Your task to perform on an android device: Open Yahoo.com Image 0: 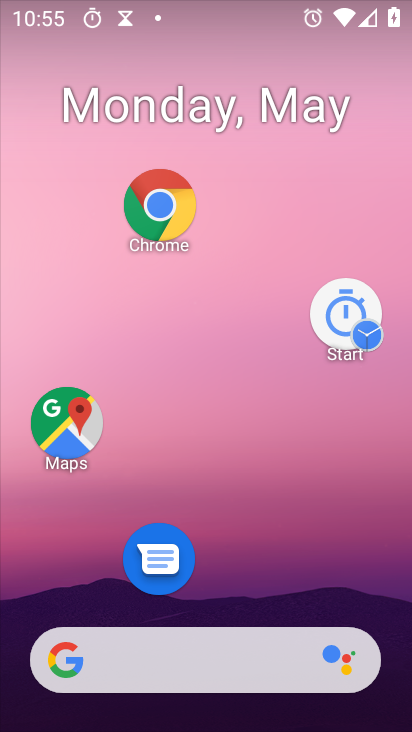
Step 0: drag from (258, 657) to (195, 173)
Your task to perform on an android device: Open Yahoo.com Image 1: 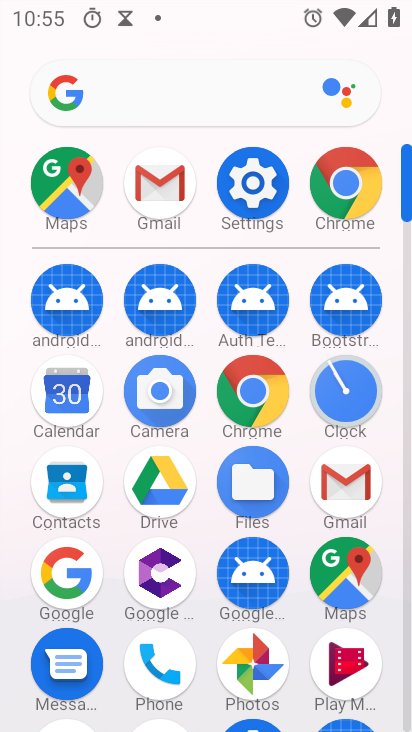
Step 1: press back button
Your task to perform on an android device: Open Yahoo.com Image 2: 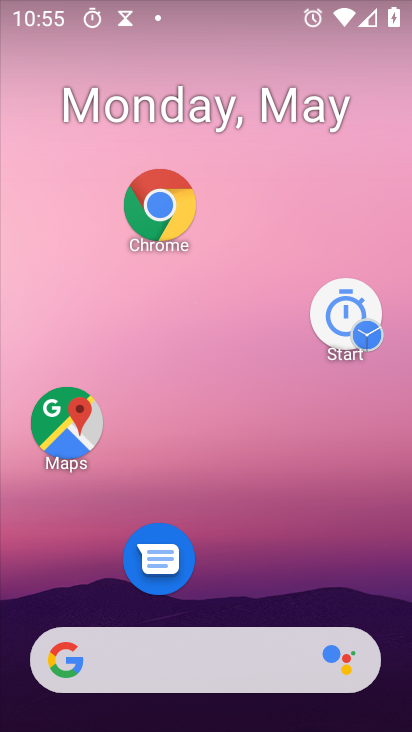
Step 2: drag from (254, 697) to (205, 202)
Your task to perform on an android device: Open Yahoo.com Image 3: 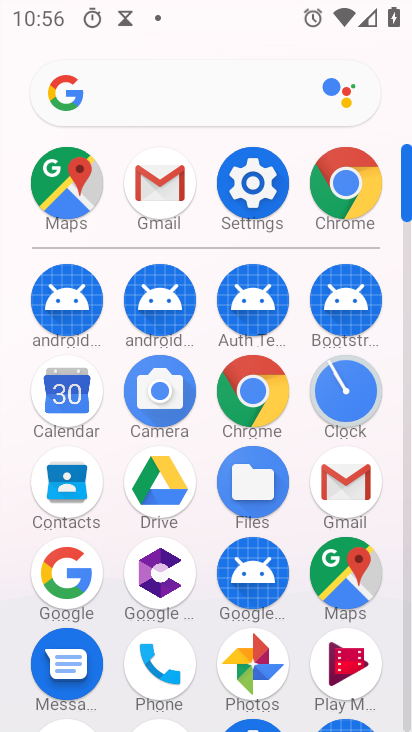
Step 3: click (358, 185)
Your task to perform on an android device: Open Yahoo.com Image 4: 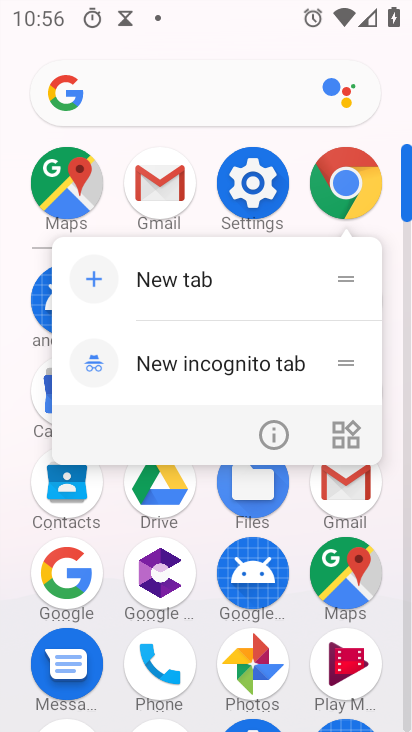
Step 4: click (393, 304)
Your task to perform on an android device: Open Yahoo.com Image 5: 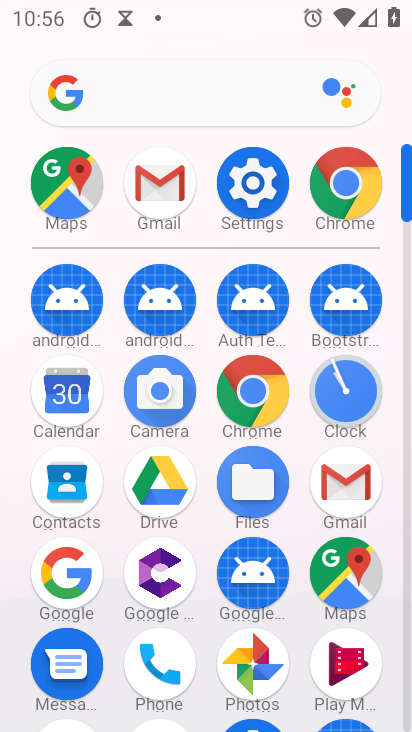
Step 5: click (385, 255)
Your task to perform on an android device: Open Yahoo.com Image 6: 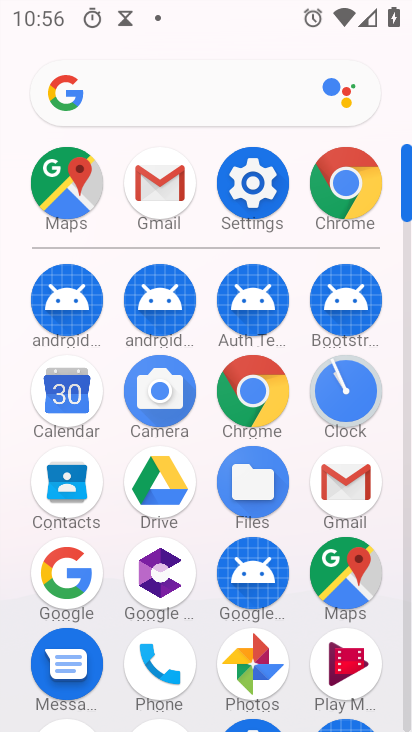
Step 6: click (252, 384)
Your task to perform on an android device: Open Yahoo.com Image 7: 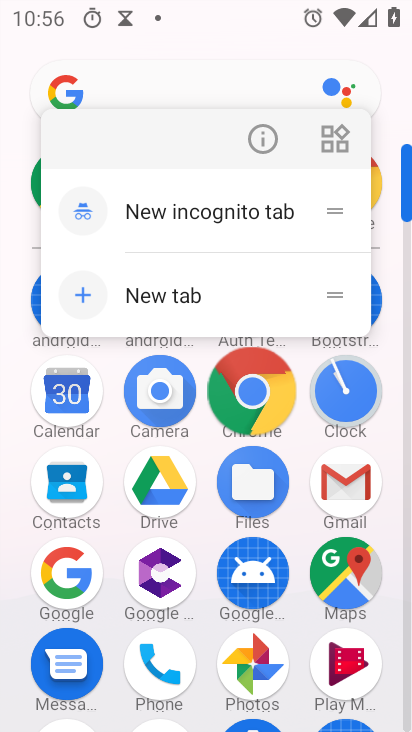
Step 7: click (258, 377)
Your task to perform on an android device: Open Yahoo.com Image 8: 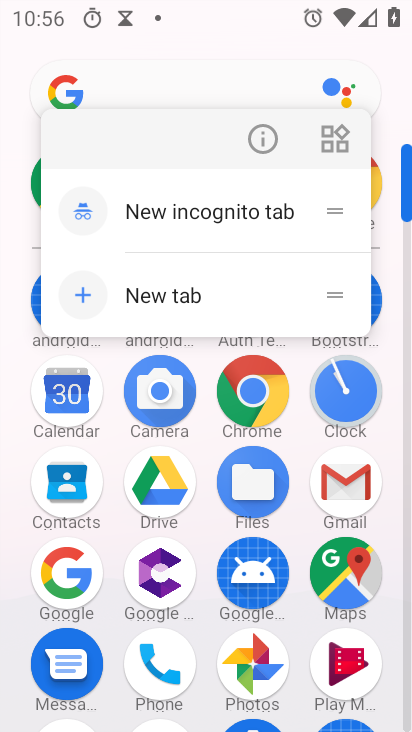
Step 8: click (258, 377)
Your task to perform on an android device: Open Yahoo.com Image 9: 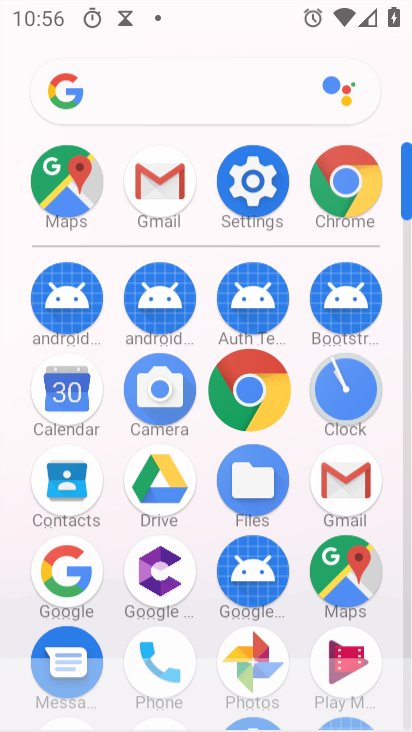
Step 9: click (259, 378)
Your task to perform on an android device: Open Yahoo.com Image 10: 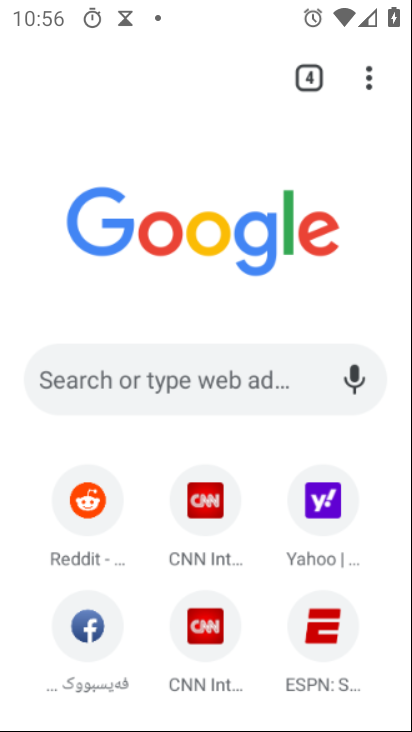
Step 10: click (258, 379)
Your task to perform on an android device: Open Yahoo.com Image 11: 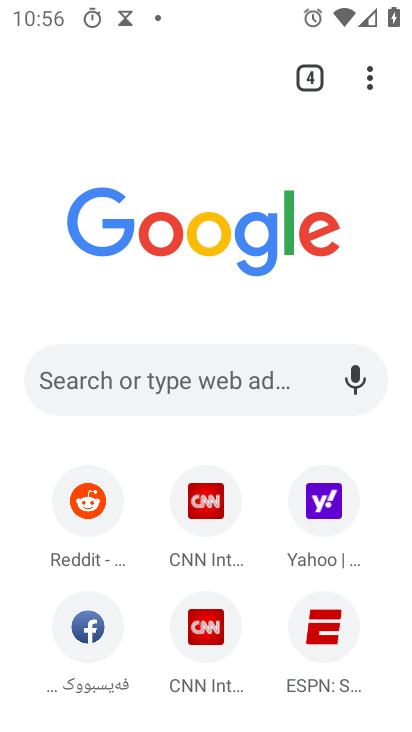
Step 11: click (311, 519)
Your task to perform on an android device: Open Yahoo.com Image 12: 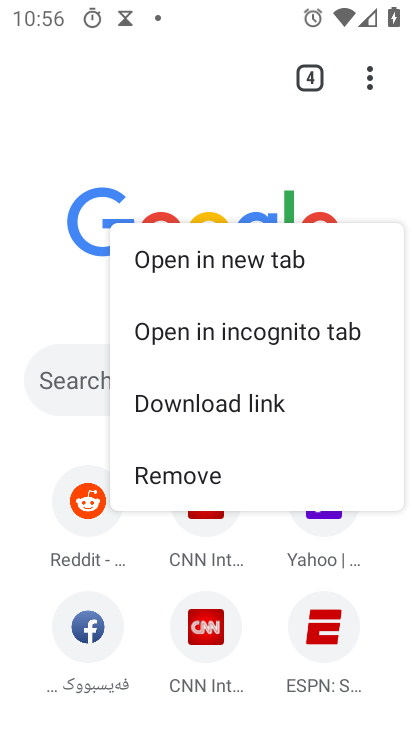
Step 12: click (326, 511)
Your task to perform on an android device: Open Yahoo.com Image 13: 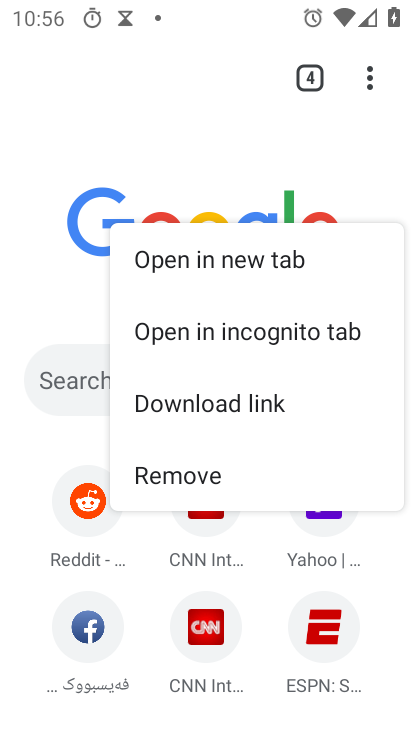
Step 13: click (327, 511)
Your task to perform on an android device: Open Yahoo.com Image 14: 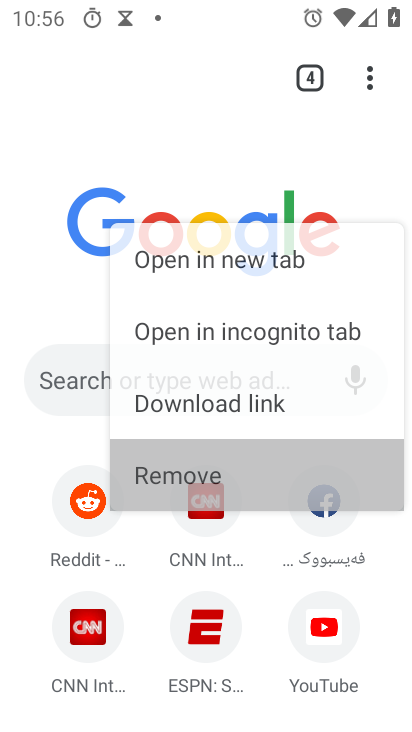
Step 14: click (327, 506)
Your task to perform on an android device: Open Yahoo.com Image 15: 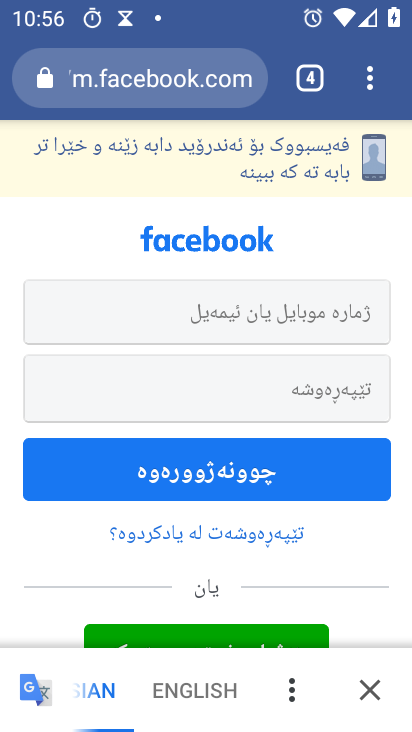
Step 15: task complete